Your task to perform on an android device: refresh tabs in the chrome app Image 0: 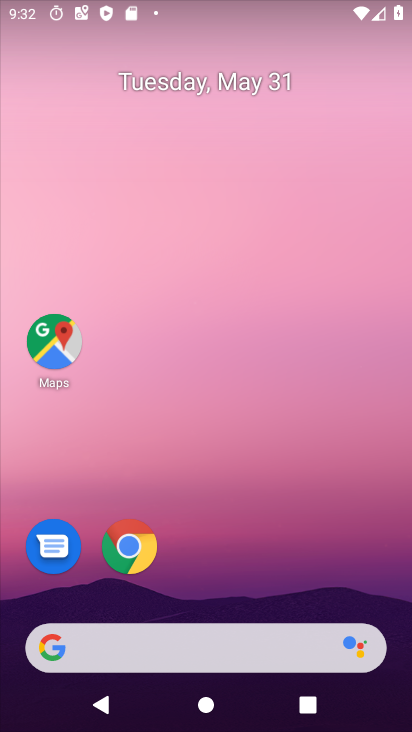
Step 0: click (136, 552)
Your task to perform on an android device: refresh tabs in the chrome app Image 1: 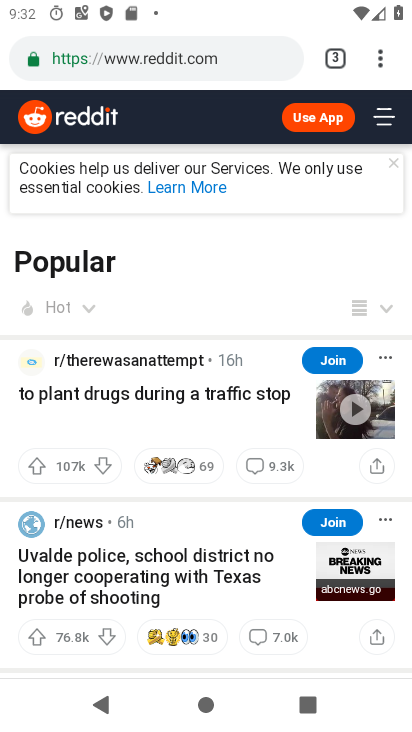
Step 1: click (386, 54)
Your task to perform on an android device: refresh tabs in the chrome app Image 2: 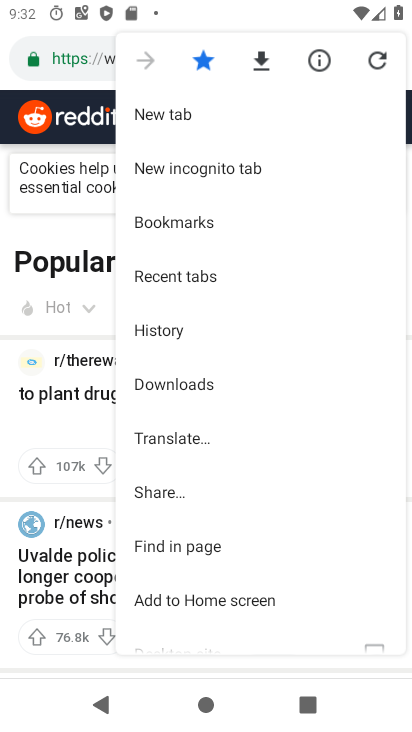
Step 2: click (375, 60)
Your task to perform on an android device: refresh tabs in the chrome app Image 3: 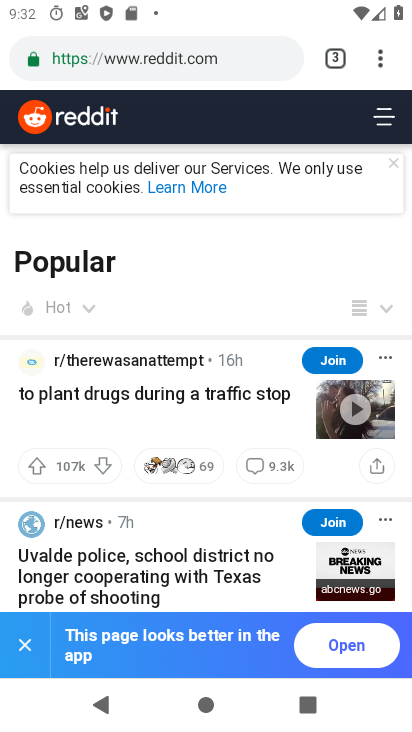
Step 3: task complete